Your task to perform on an android device: Go to Reddit.com Image 0: 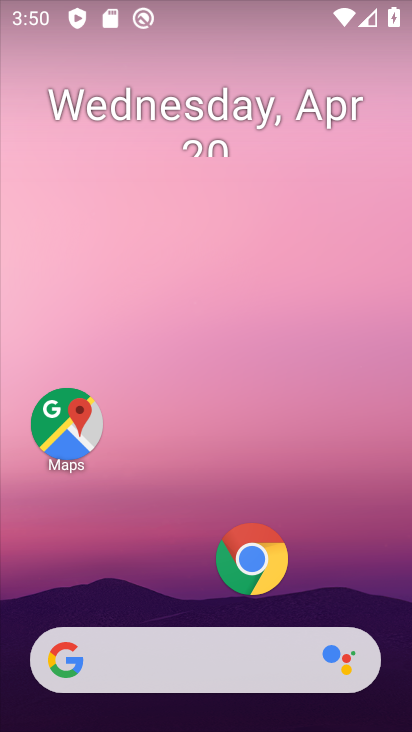
Step 0: click (259, 558)
Your task to perform on an android device: Go to Reddit.com Image 1: 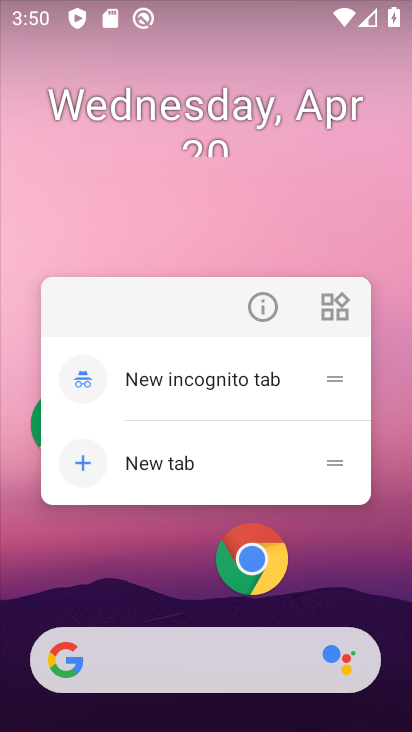
Step 1: click (253, 309)
Your task to perform on an android device: Go to Reddit.com Image 2: 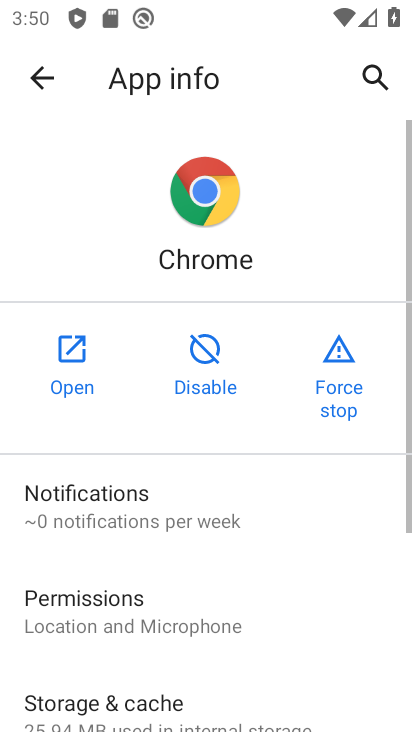
Step 2: click (77, 375)
Your task to perform on an android device: Go to Reddit.com Image 3: 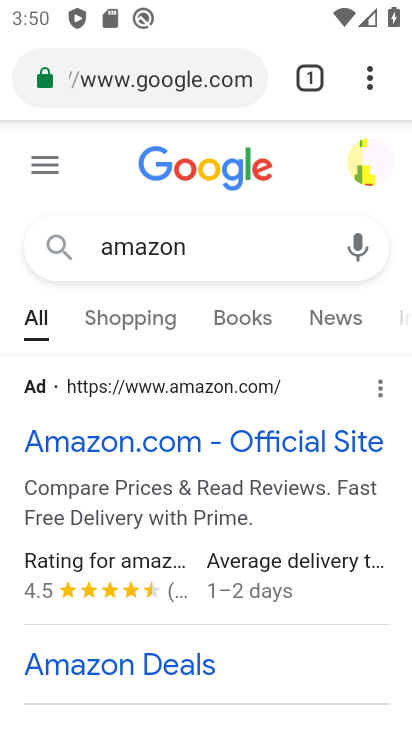
Step 3: click (221, 251)
Your task to perform on an android device: Go to Reddit.com Image 4: 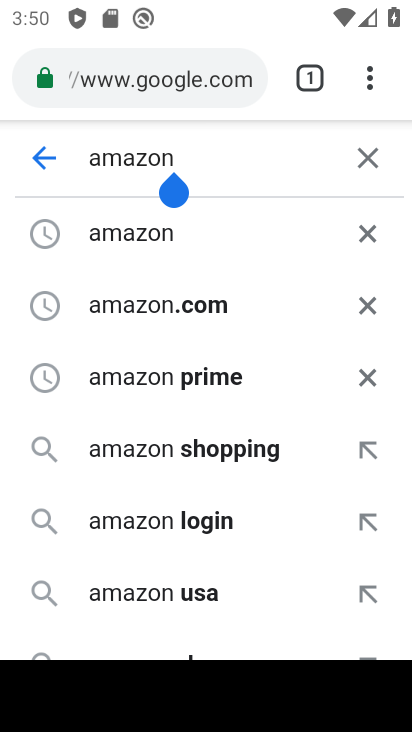
Step 4: click (357, 162)
Your task to perform on an android device: Go to Reddit.com Image 5: 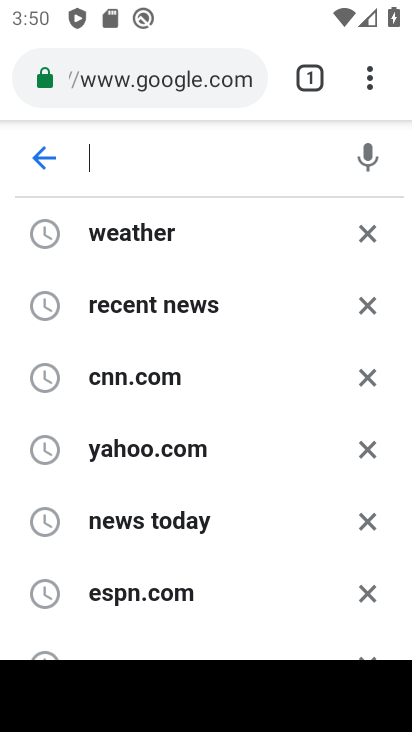
Step 5: type "Reddir.com"
Your task to perform on an android device: Go to Reddit.com Image 6: 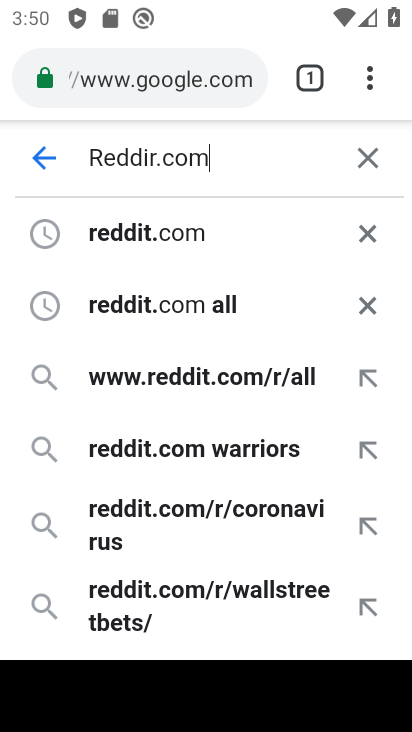
Step 6: click (193, 240)
Your task to perform on an android device: Go to Reddit.com Image 7: 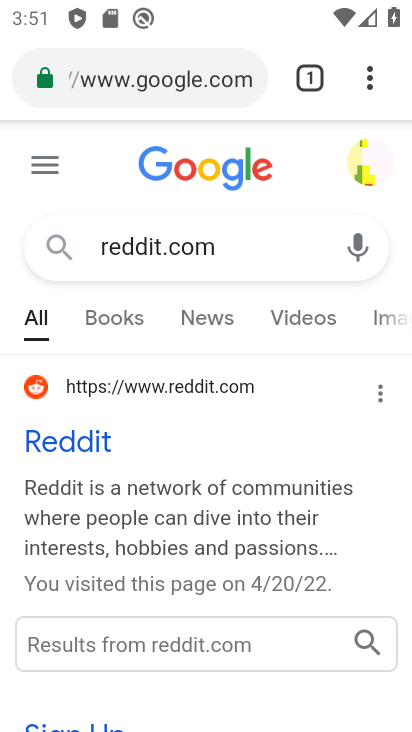
Step 7: task complete